Your task to perform on an android device: Search for pizza restaurants on Maps Image 0: 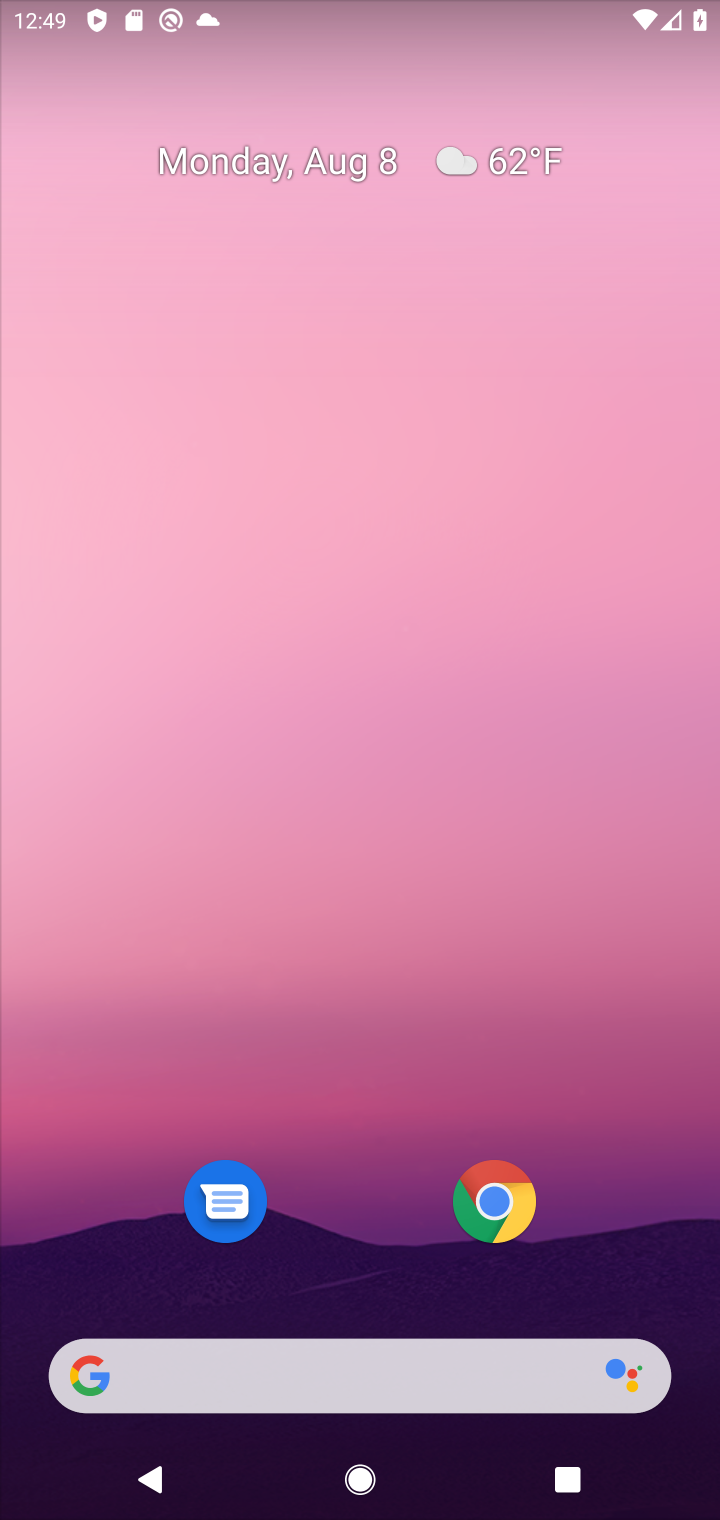
Step 0: drag from (381, 1109) to (280, 411)
Your task to perform on an android device: Search for pizza restaurants on Maps Image 1: 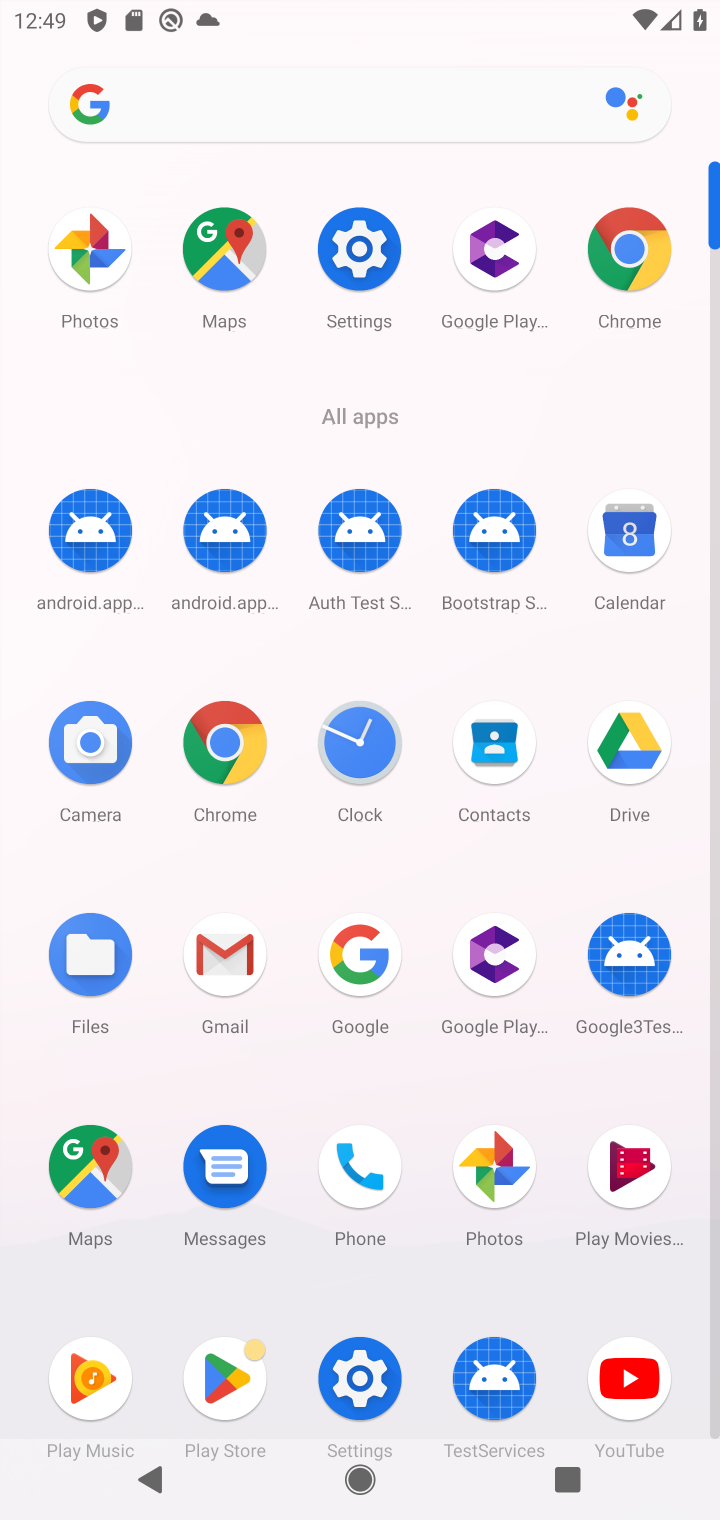
Step 1: click (226, 257)
Your task to perform on an android device: Search for pizza restaurants on Maps Image 2: 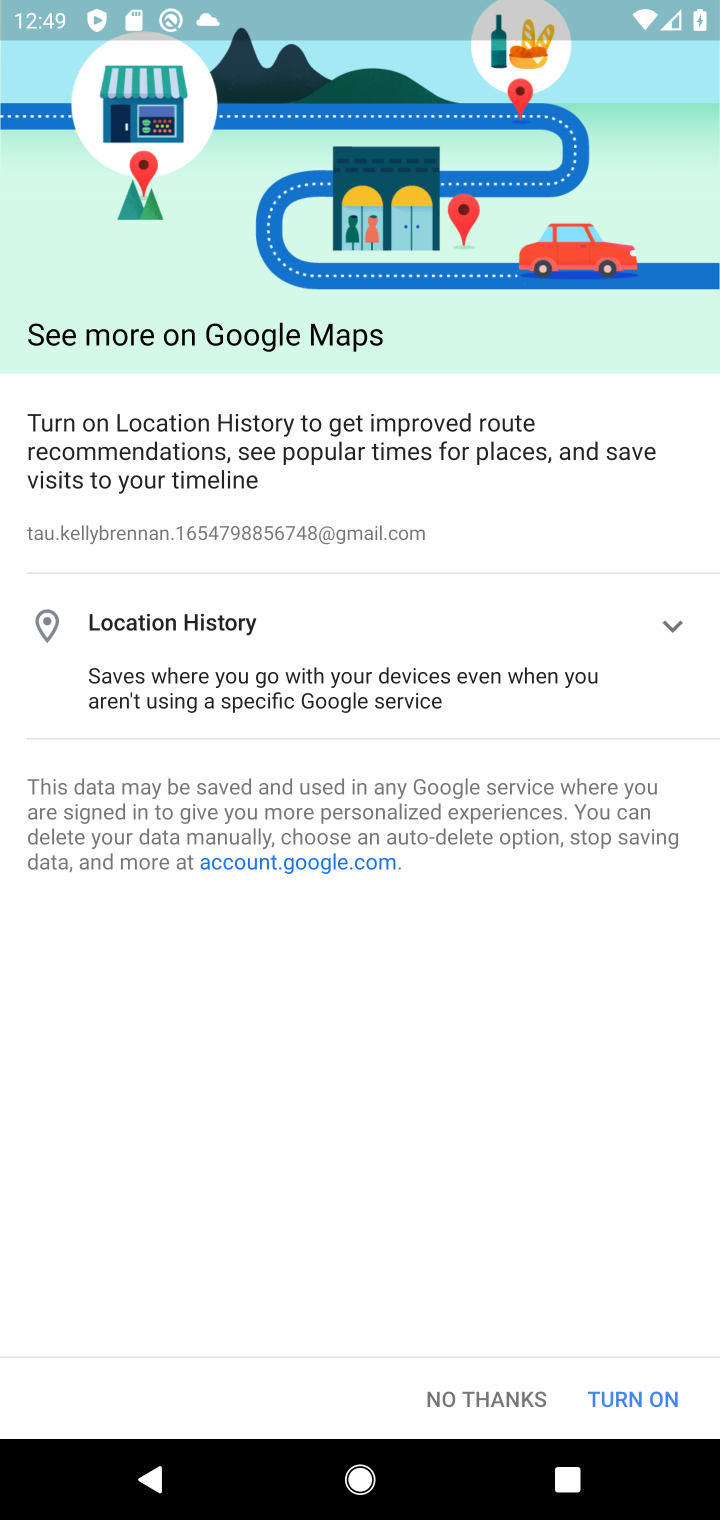
Step 2: click (468, 1395)
Your task to perform on an android device: Search for pizza restaurants on Maps Image 3: 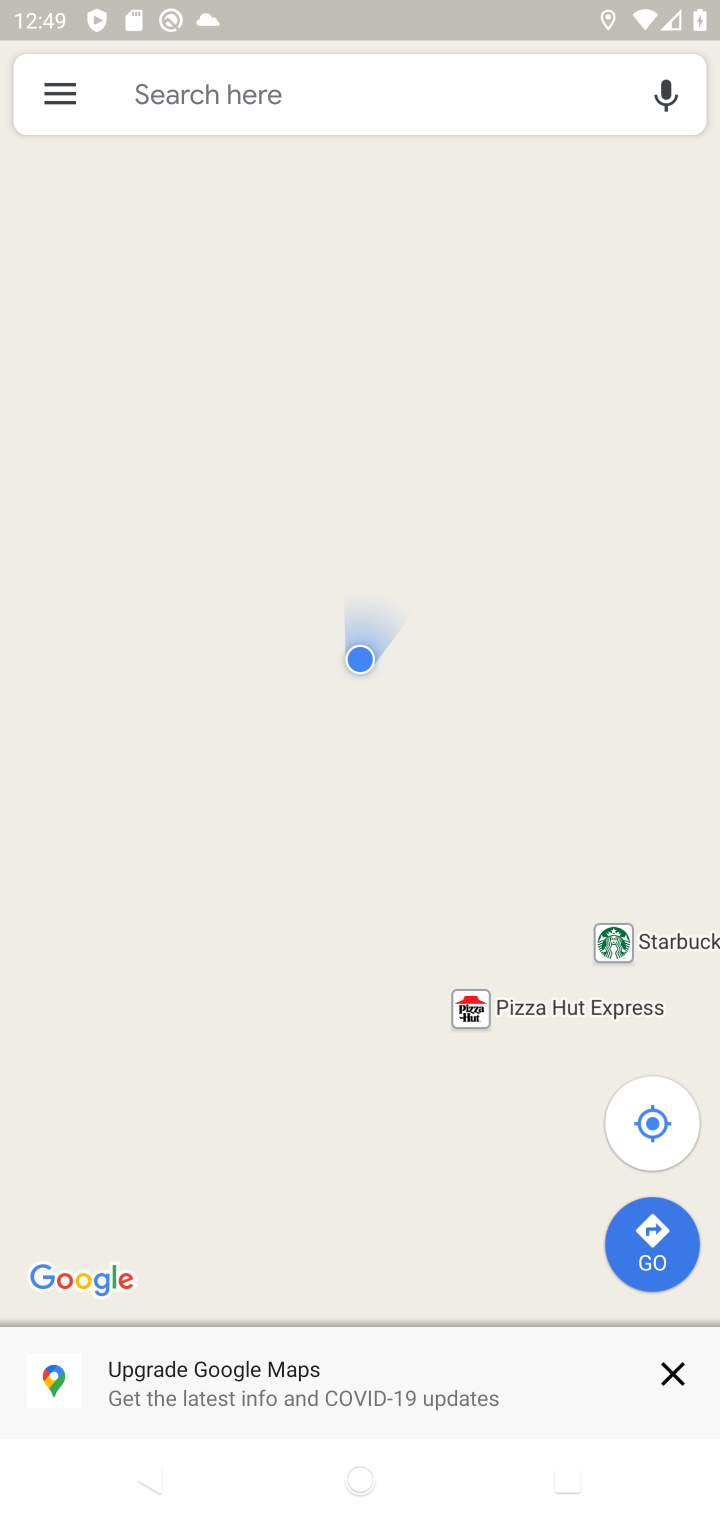
Step 3: click (256, 111)
Your task to perform on an android device: Search for pizza restaurants on Maps Image 4: 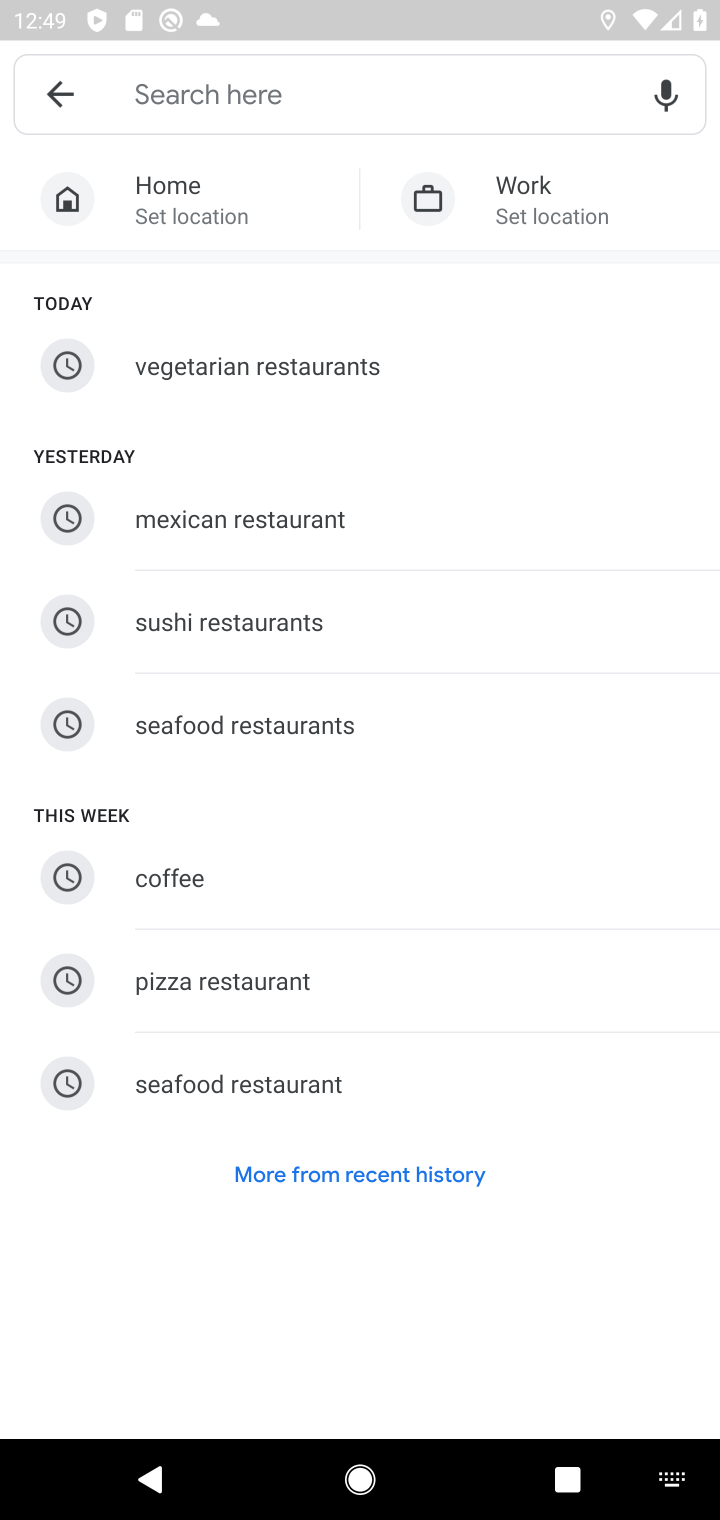
Step 4: click (230, 971)
Your task to perform on an android device: Search for pizza restaurants on Maps Image 5: 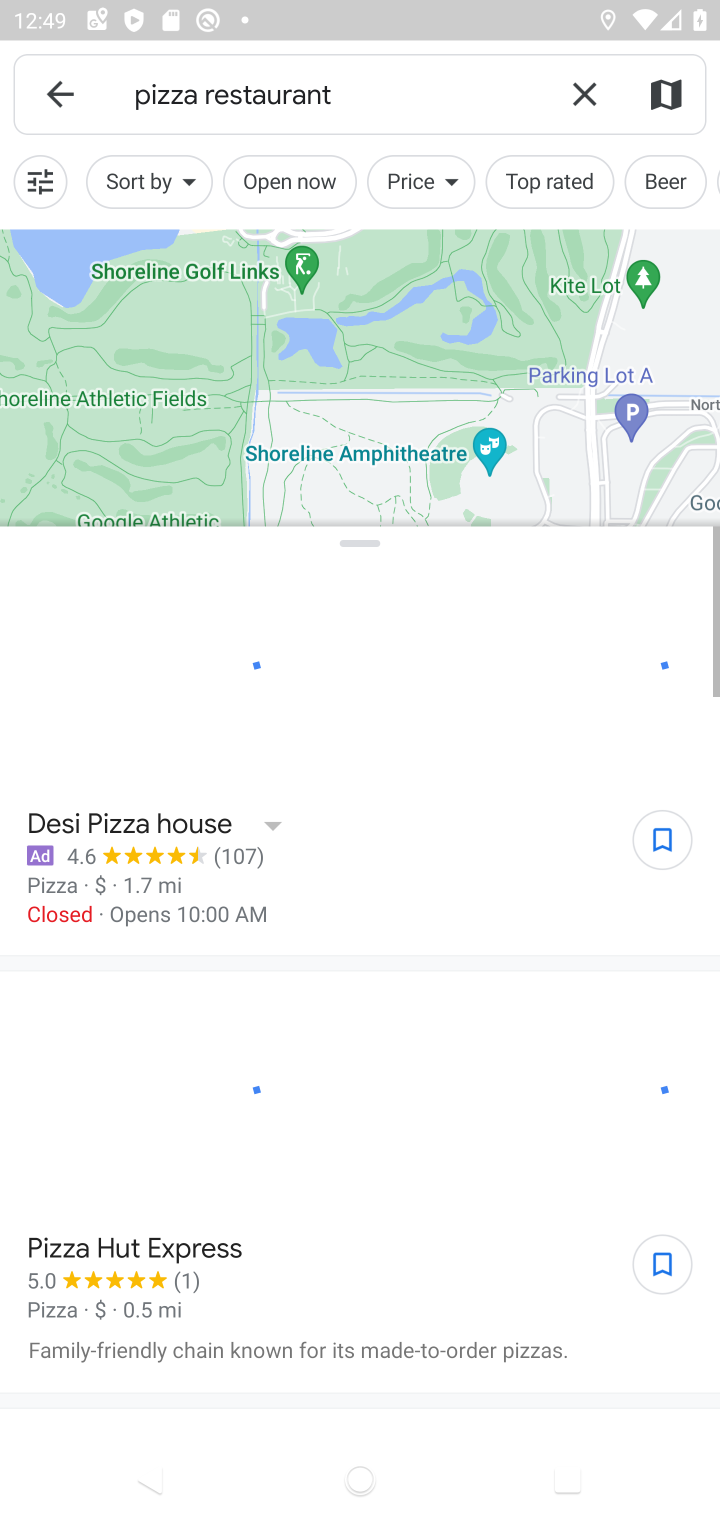
Step 5: task complete